Your task to perform on an android device: Open the phone app and click the voicemail tab. Image 0: 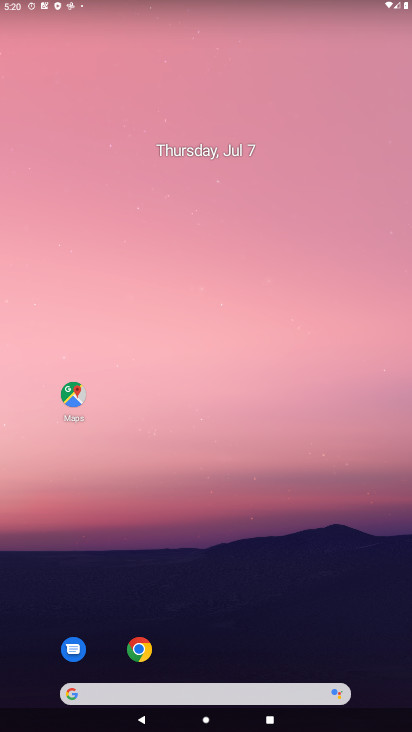
Step 0: drag from (379, 669) to (190, 32)
Your task to perform on an android device: Open the phone app and click the voicemail tab. Image 1: 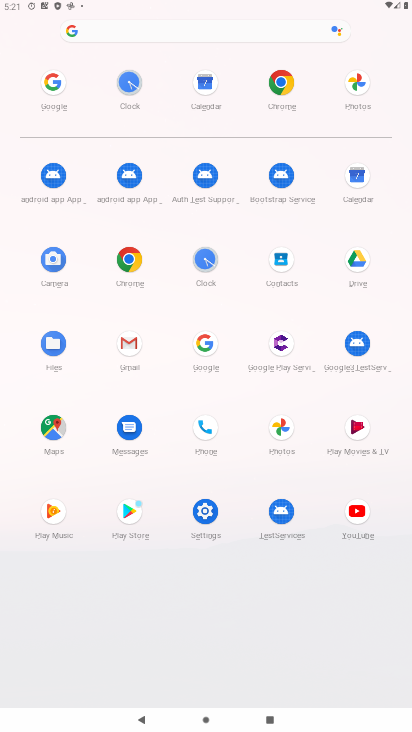
Step 1: click (215, 434)
Your task to perform on an android device: Open the phone app and click the voicemail tab. Image 2: 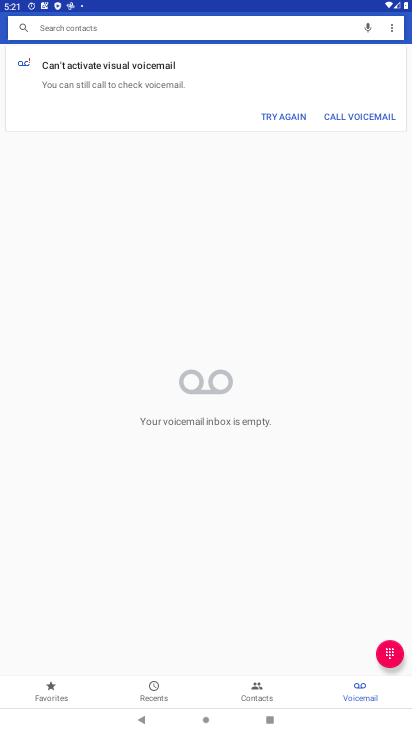
Step 2: task complete